Your task to perform on an android device: remove spam from my inbox in the gmail app Image 0: 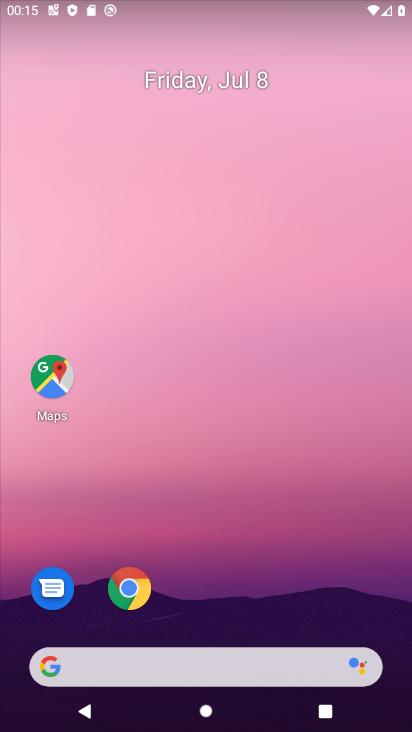
Step 0: drag from (187, 633) to (351, 188)
Your task to perform on an android device: remove spam from my inbox in the gmail app Image 1: 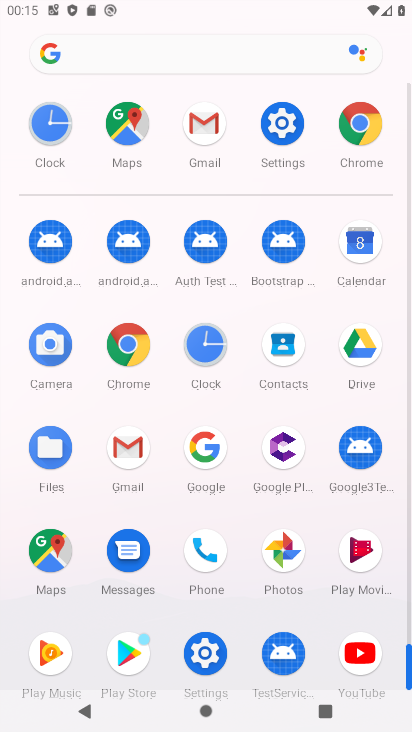
Step 1: click (126, 435)
Your task to perform on an android device: remove spam from my inbox in the gmail app Image 2: 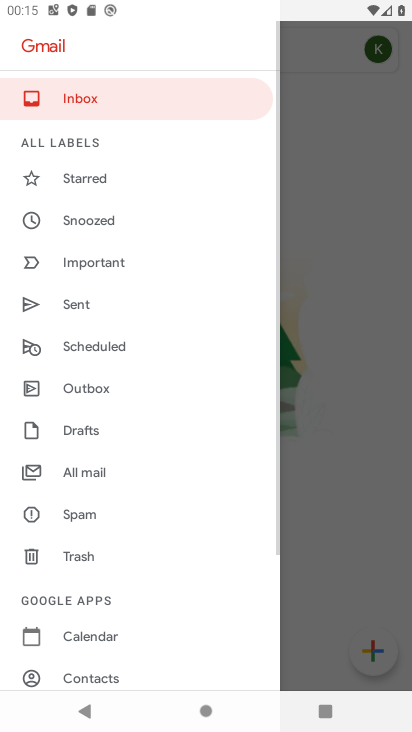
Step 2: drag from (129, 208) to (152, 679)
Your task to perform on an android device: remove spam from my inbox in the gmail app Image 3: 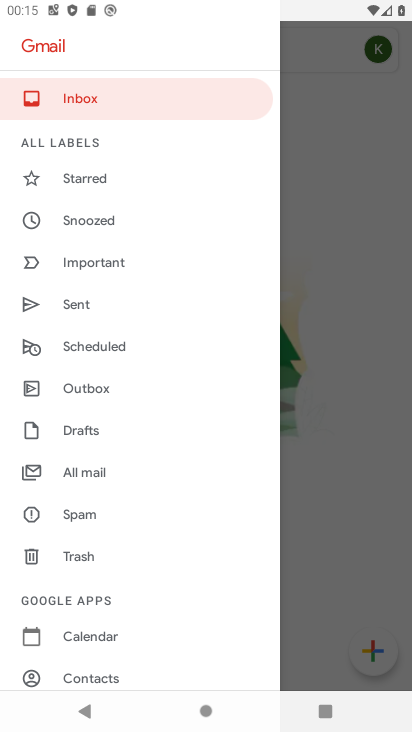
Step 3: click (97, 512)
Your task to perform on an android device: remove spam from my inbox in the gmail app Image 4: 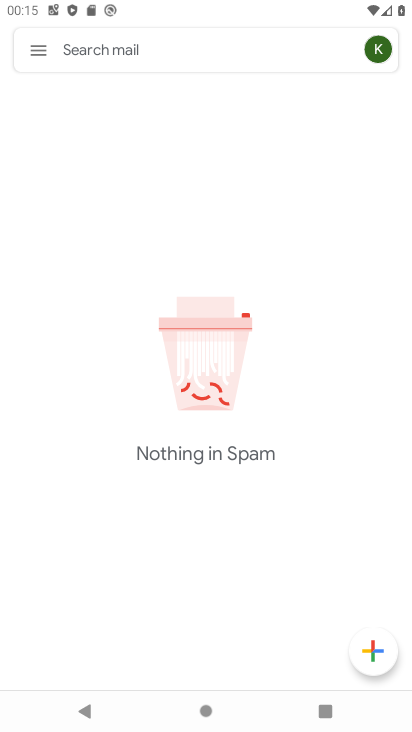
Step 4: drag from (246, 529) to (270, 221)
Your task to perform on an android device: remove spam from my inbox in the gmail app Image 5: 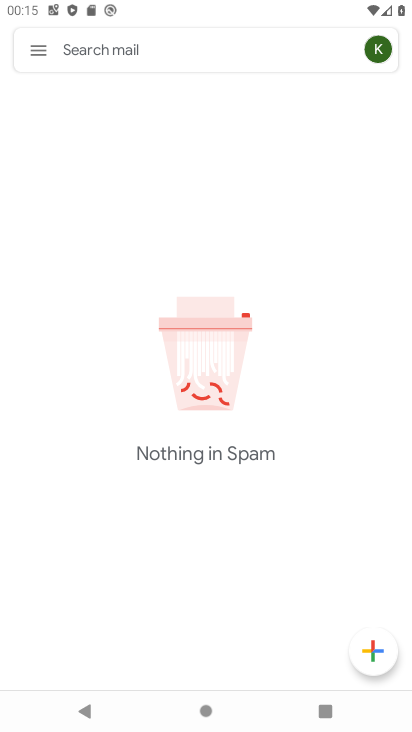
Step 5: drag from (273, 584) to (265, 332)
Your task to perform on an android device: remove spam from my inbox in the gmail app Image 6: 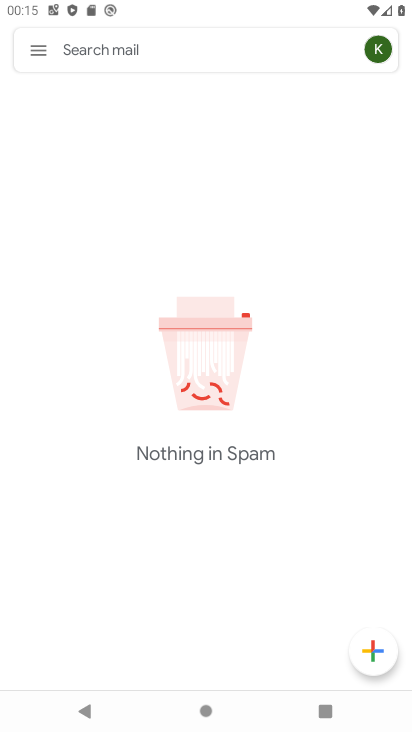
Step 6: drag from (190, 498) to (235, 231)
Your task to perform on an android device: remove spam from my inbox in the gmail app Image 7: 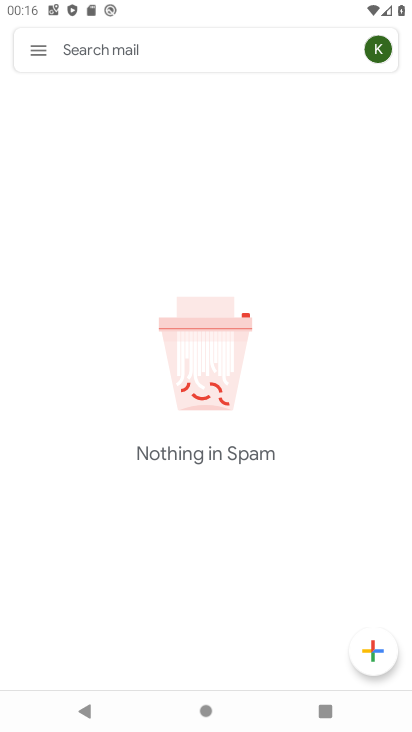
Step 7: click (36, 47)
Your task to perform on an android device: remove spam from my inbox in the gmail app Image 8: 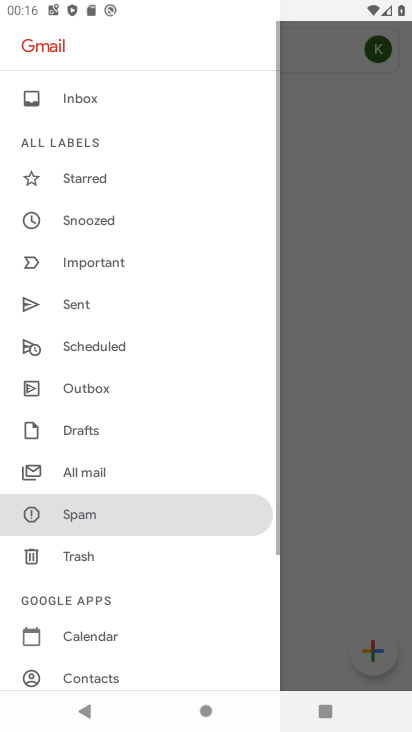
Step 8: drag from (123, 610) to (265, 168)
Your task to perform on an android device: remove spam from my inbox in the gmail app Image 9: 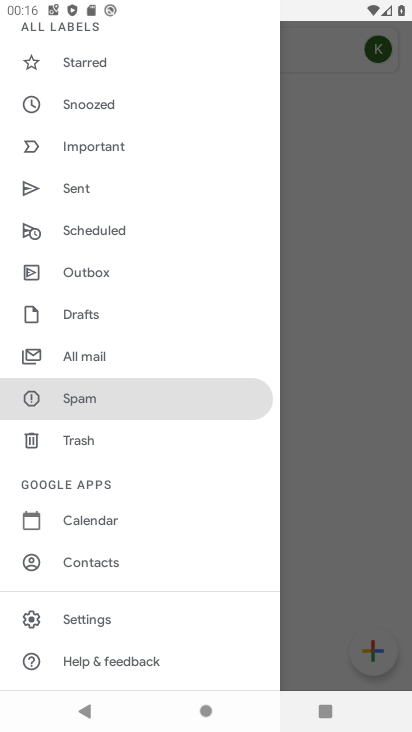
Step 9: click (111, 395)
Your task to perform on an android device: remove spam from my inbox in the gmail app Image 10: 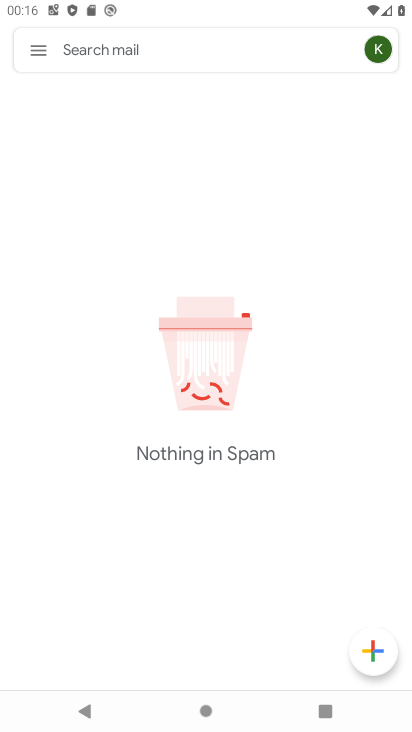
Step 10: task complete